Your task to perform on an android device: uninstall "Duolingo: language lessons" Image 0: 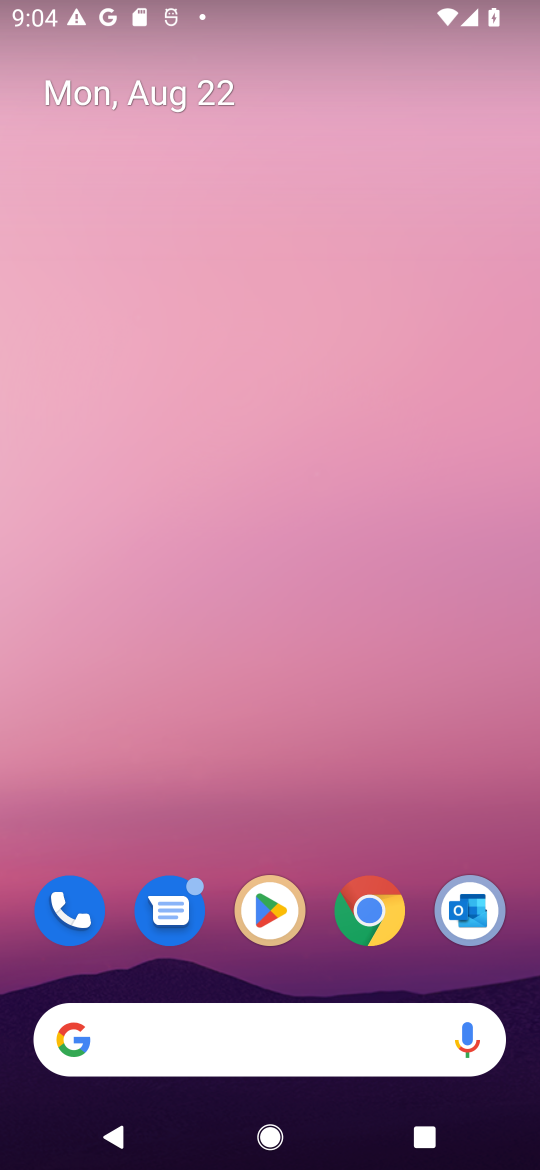
Step 0: click (264, 886)
Your task to perform on an android device: uninstall "Duolingo: language lessons" Image 1: 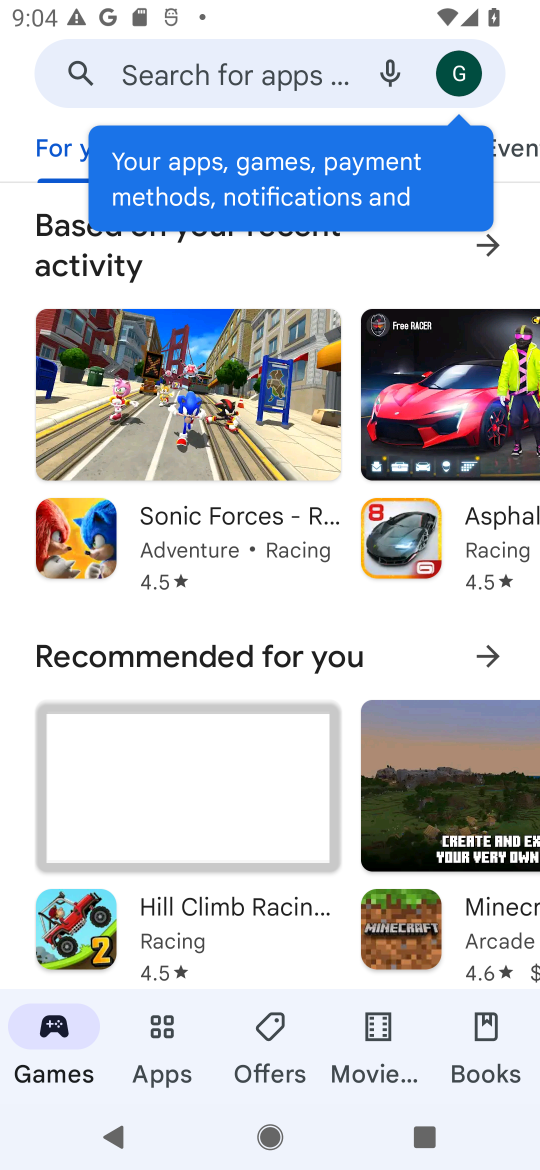
Step 1: click (307, 74)
Your task to perform on an android device: uninstall "Duolingo: language lessons" Image 2: 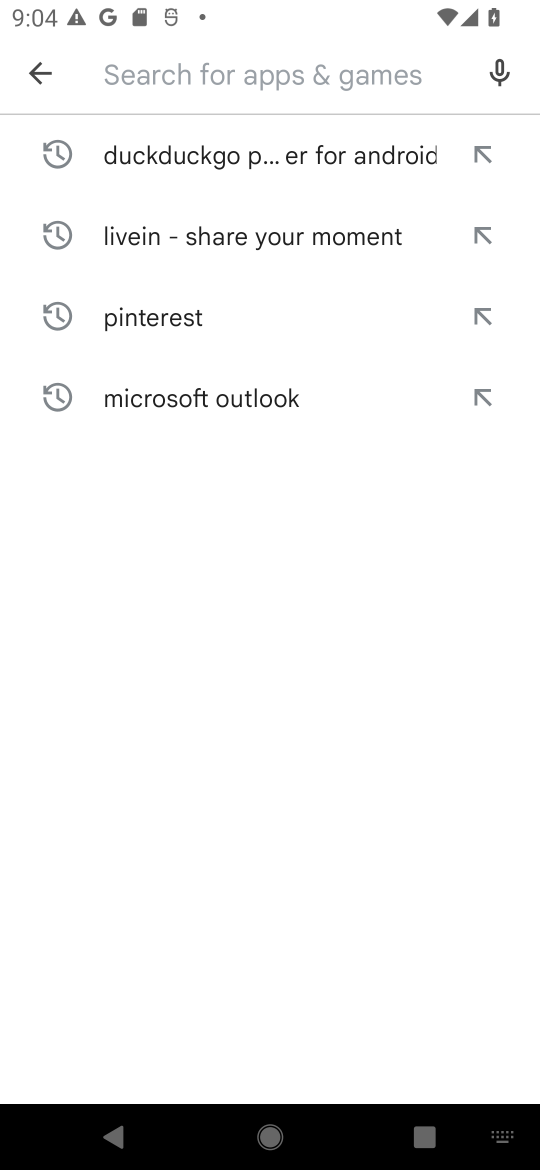
Step 2: type "Duolingo: language lessons"
Your task to perform on an android device: uninstall "Duolingo: language lessons" Image 3: 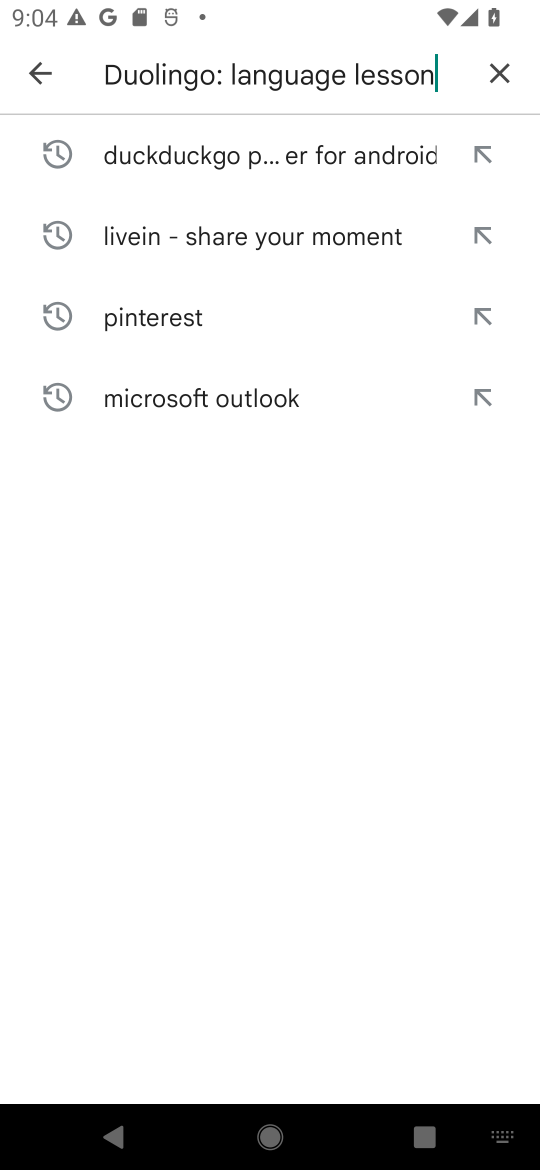
Step 3: type ""
Your task to perform on an android device: uninstall "Duolingo: language lessons" Image 4: 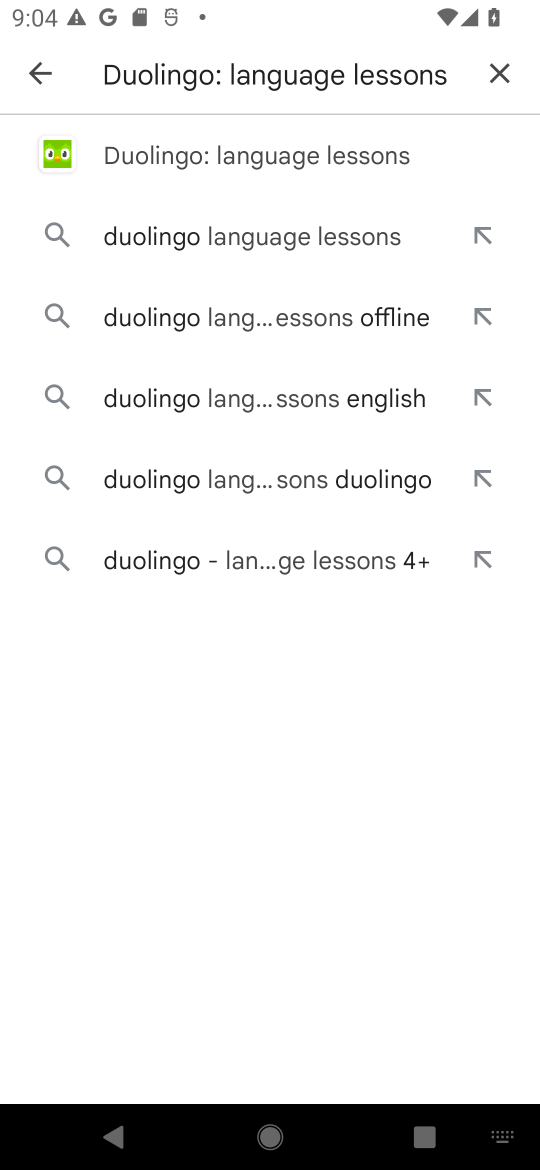
Step 4: click (251, 144)
Your task to perform on an android device: uninstall "Duolingo: language lessons" Image 5: 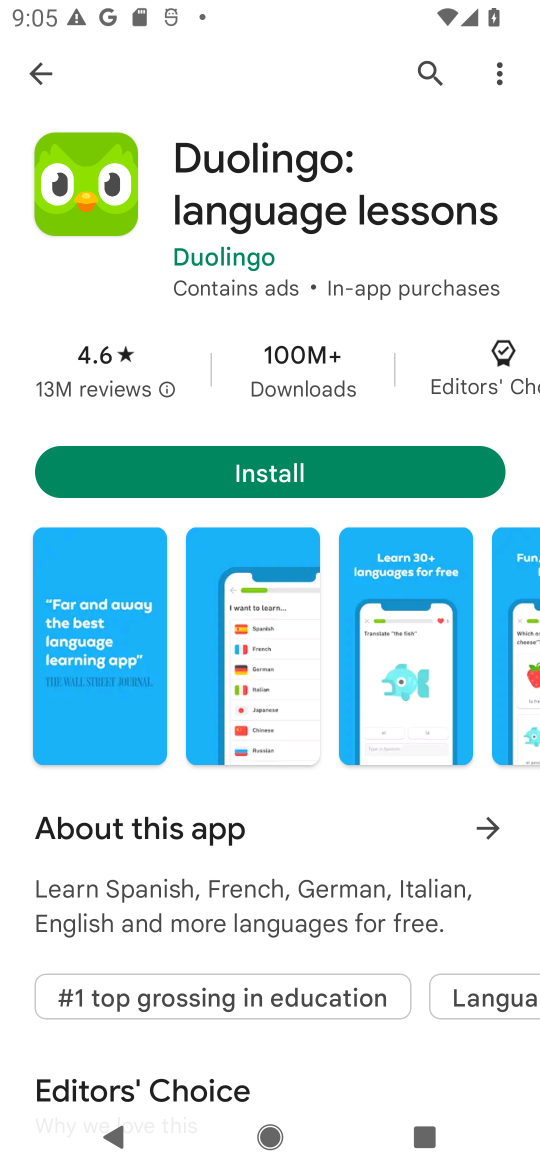
Step 5: task complete